Your task to perform on an android device: Open the web browser Image 0: 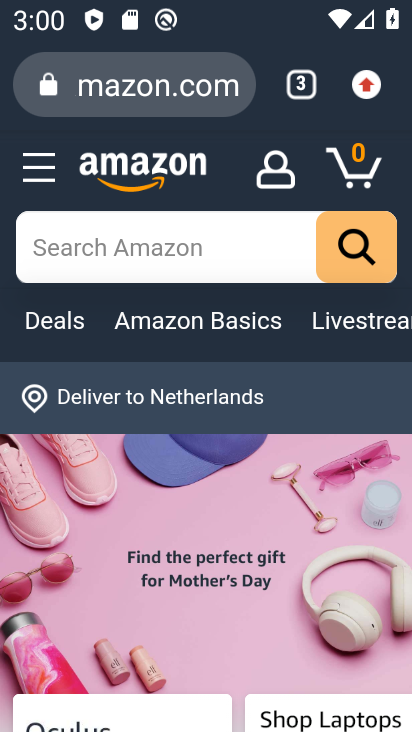
Step 0: task complete